Your task to perform on an android device: Go to location settings Image 0: 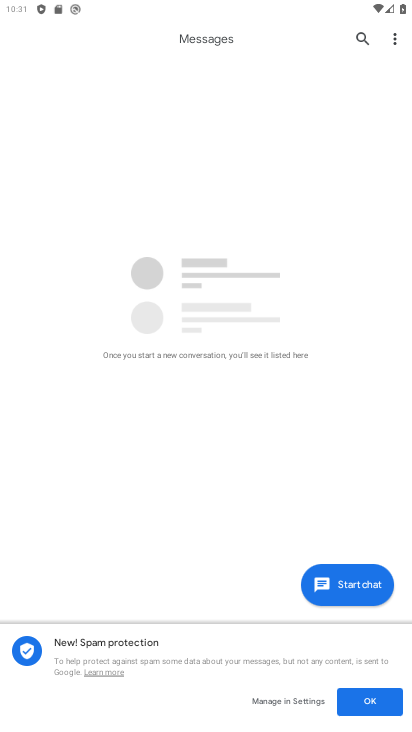
Step 0: press home button
Your task to perform on an android device: Go to location settings Image 1: 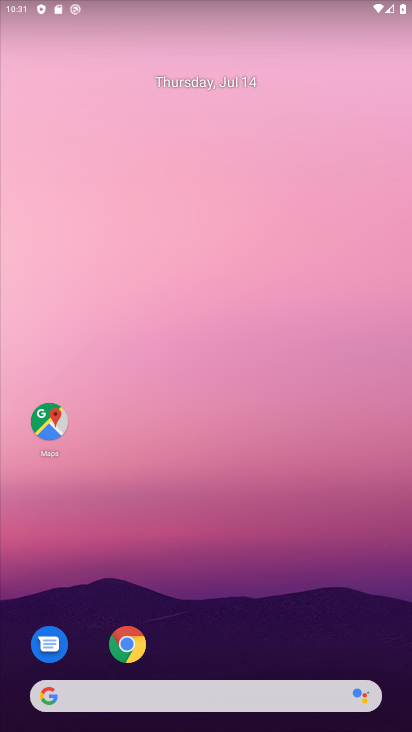
Step 1: drag from (213, 702) to (233, 276)
Your task to perform on an android device: Go to location settings Image 2: 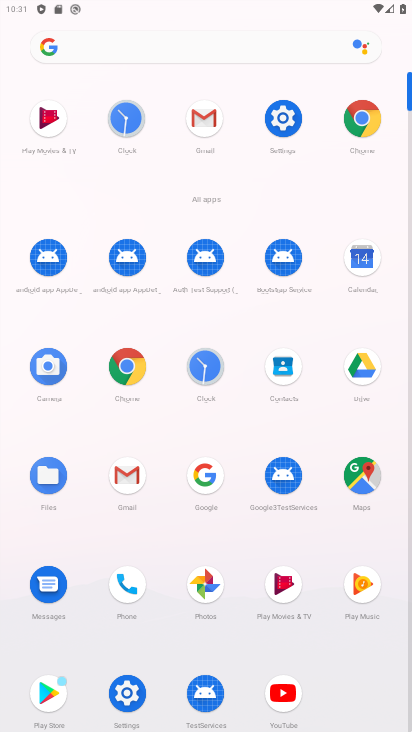
Step 2: click (284, 121)
Your task to perform on an android device: Go to location settings Image 3: 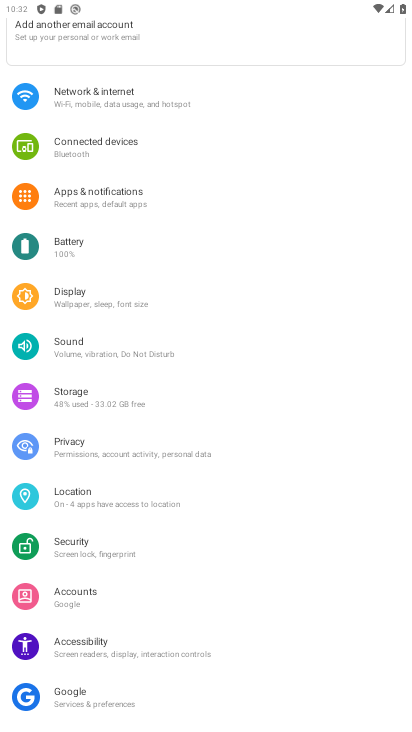
Step 3: click (113, 492)
Your task to perform on an android device: Go to location settings Image 4: 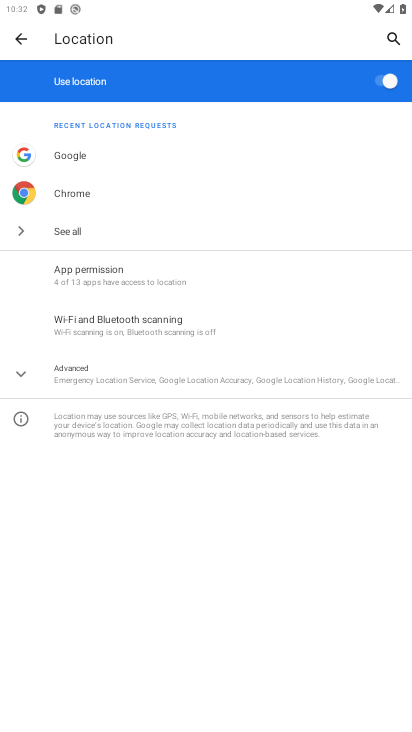
Step 4: task complete